Your task to perform on an android device: turn off improve location accuracy Image 0: 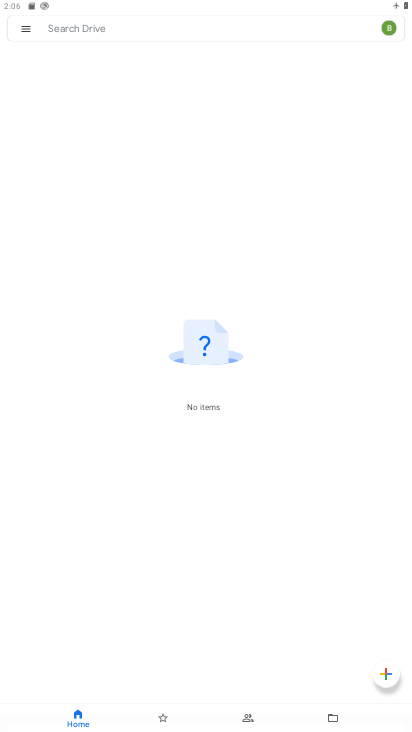
Step 0: press home button
Your task to perform on an android device: turn off improve location accuracy Image 1: 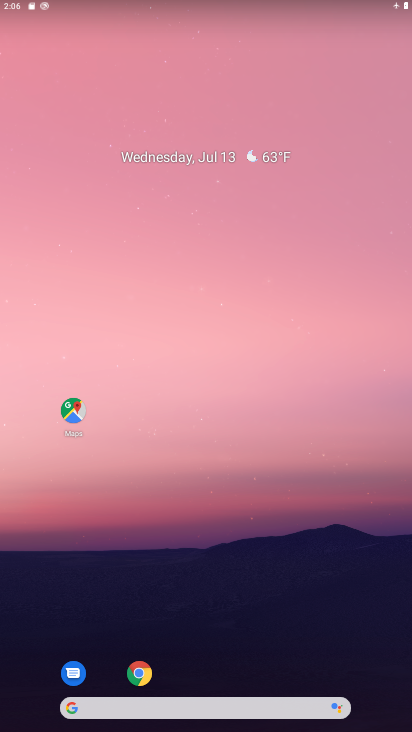
Step 1: drag from (277, 630) to (273, 276)
Your task to perform on an android device: turn off improve location accuracy Image 2: 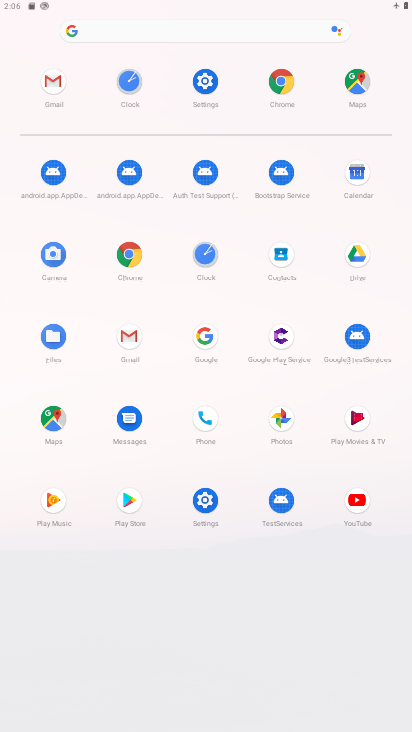
Step 2: click (211, 86)
Your task to perform on an android device: turn off improve location accuracy Image 3: 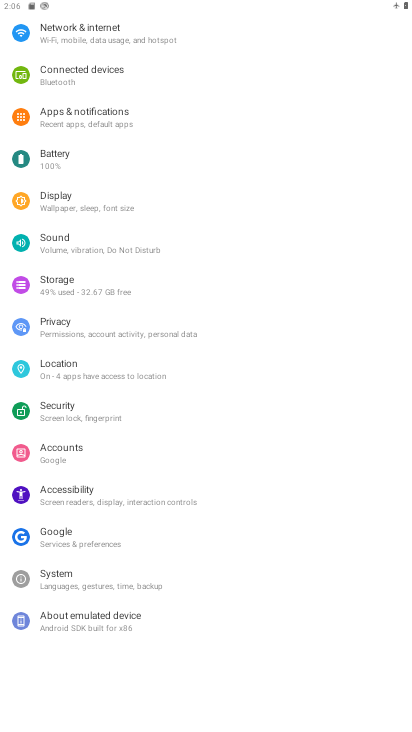
Step 3: click (84, 373)
Your task to perform on an android device: turn off improve location accuracy Image 4: 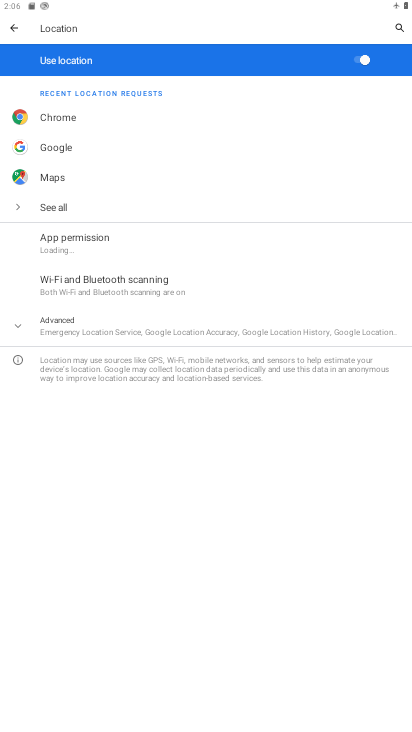
Step 4: click (156, 326)
Your task to perform on an android device: turn off improve location accuracy Image 5: 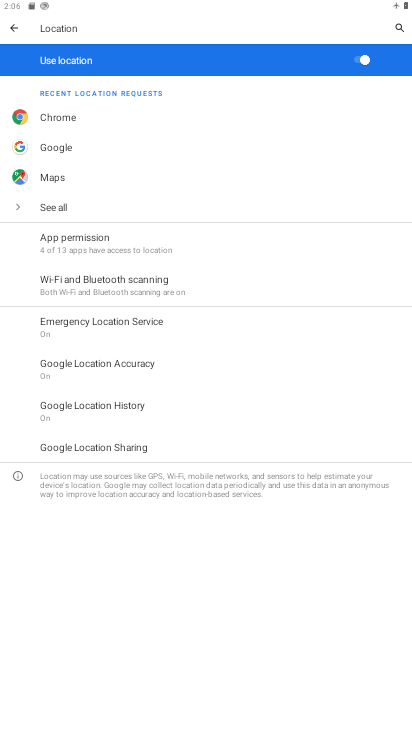
Step 5: click (147, 351)
Your task to perform on an android device: turn off improve location accuracy Image 6: 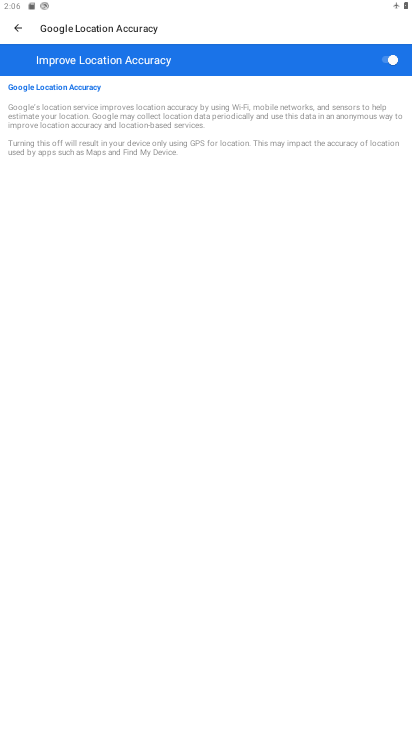
Step 6: click (375, 60)
Your task to perform on an android device: turn off improve location accuracy Image 7: 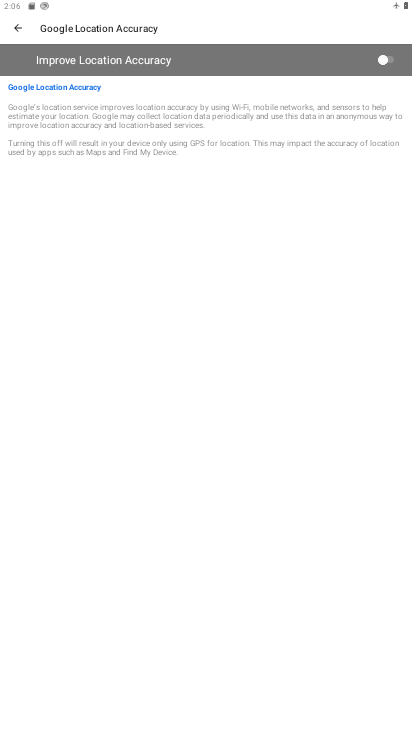
Step 7: task complete